Your task to perform on an android device: Open Maps and search for coffee Image 0: 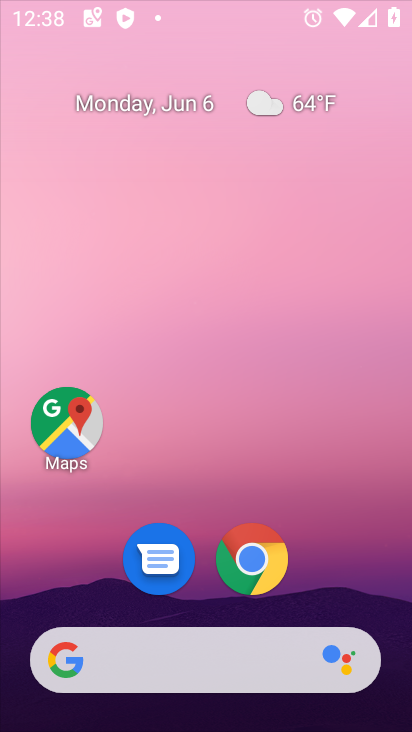
Step 0: click (303, 227)
Your task to perform on an android device: Open Maps and search for coffee Image 1: 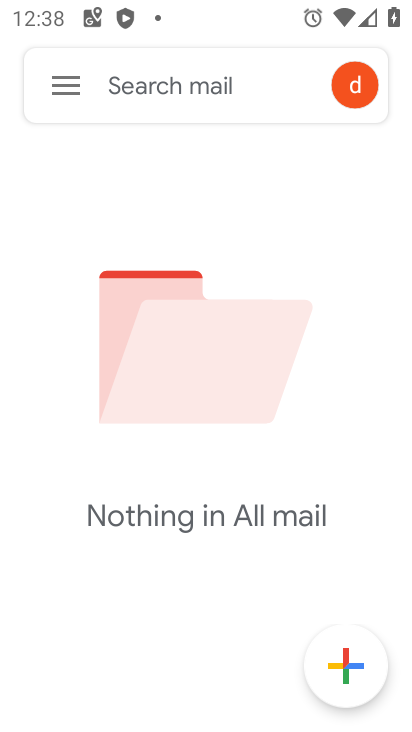
Step 1: press home button
Your task to perform on an android device: Open Maps and search for coffee Image 2: 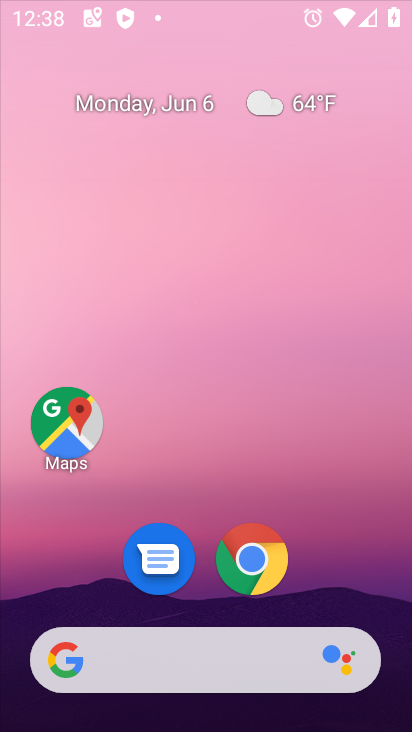
Step 2: drag from (267, 659) to (354, 229)
Your task to perform on an android device: Open Maps and search for coffee Image 3: 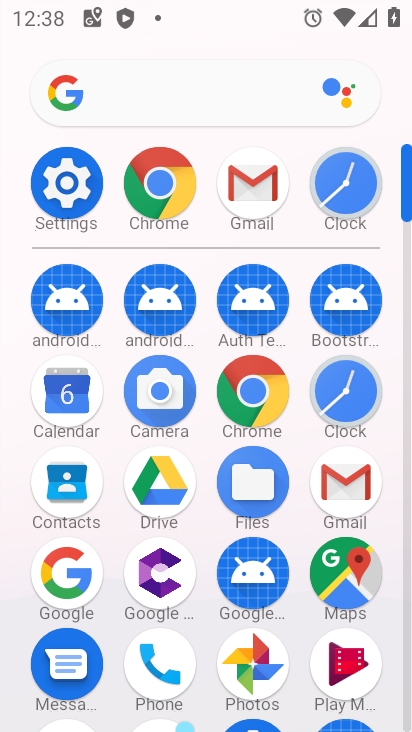
Step 3: click (333, 558)
Your task to perform on an android device: Open Maps and search for coffee Image 4: 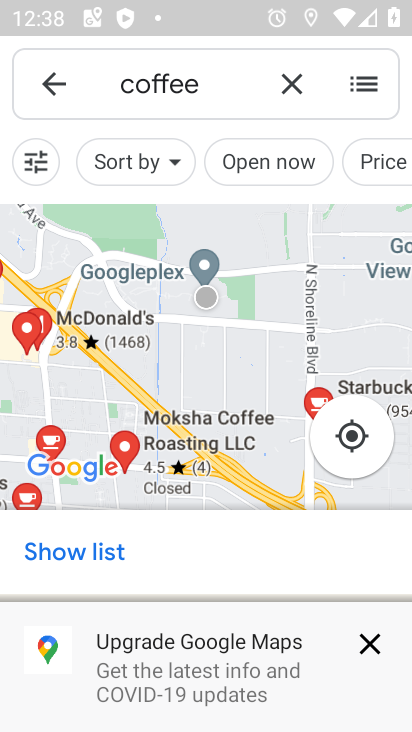
Step 4: click (193, 76)
Your task to perform on an android device: Open Maps and search for coffee Image 5: 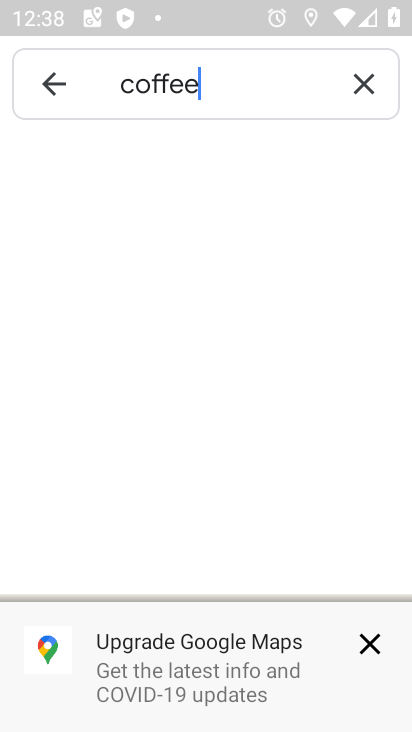
Step 5: click (214, 96)
Your task to perform on an android device: Open Maps and search for coffee Image 6: 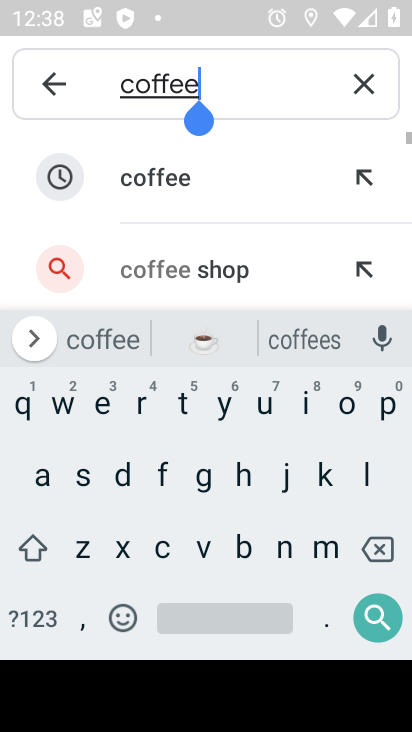
Step 6: click (374, 622)
Your task to perform on an android device: Open Maps and search for coffee Image 7: 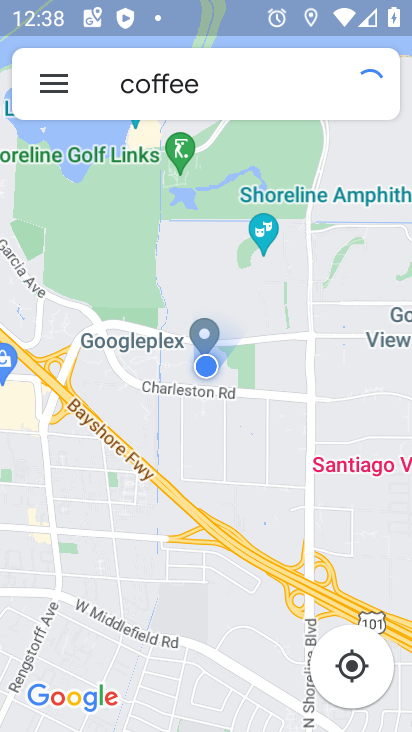
Step 7: task complete